Your task to perform on an android device: turn off translation in the chrome app Image 0: 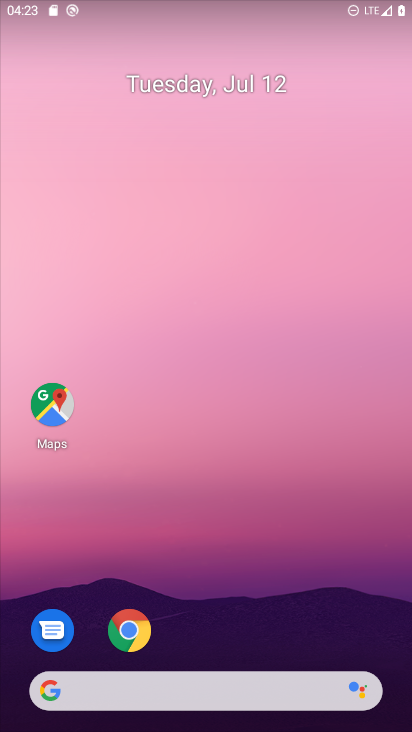
Step 0: drag from (274, 634) to (91, 28)
Your task to perform on an android device: turn off translation in the chrome app Image 1: 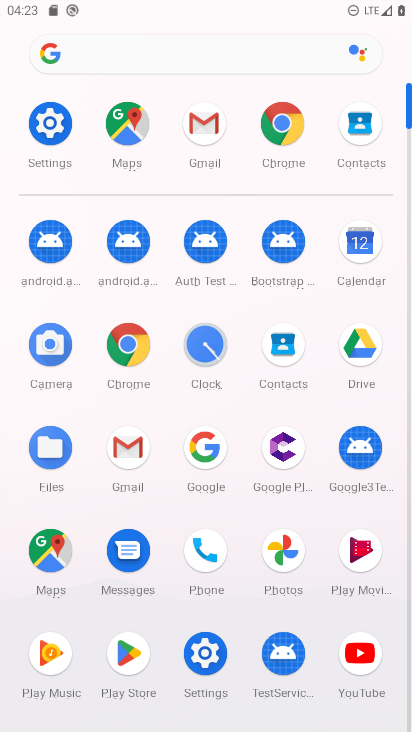
Step 1: click (134, 355)
Your task to perform on an android device: turn off translation in the chrome app Image 2: 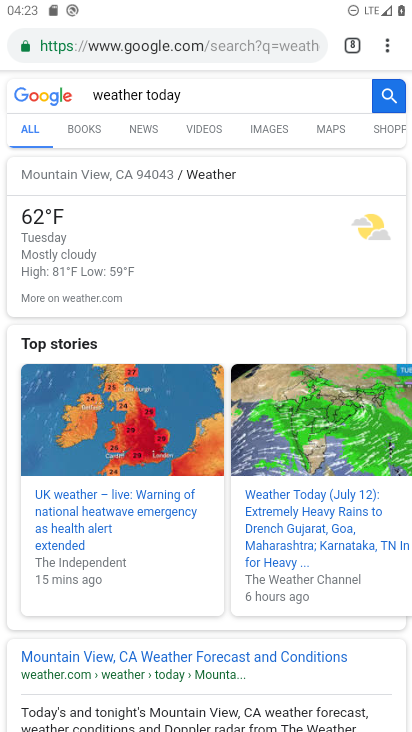
Step 2: drag from (395, 59) to (252, 505)
Your task to perform on an android device: turn off translation in the chrome app Image 3: 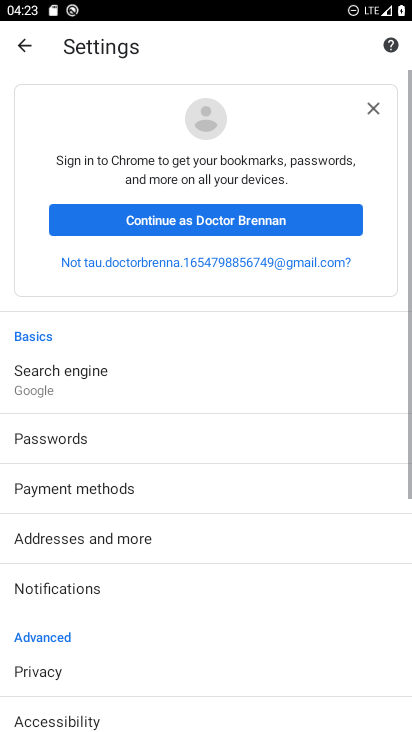
Step 3: drag from (243, 616) to (283, 164)
Your task to perform on an android device: turn off translation in the chrome app Image 4: 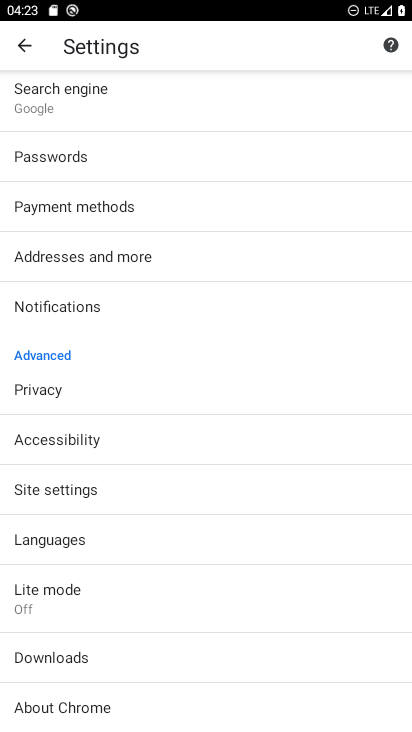
Step 4: click (125, 502)
Your task to perform on an android device: turn off translation in the chrome app Image 5: 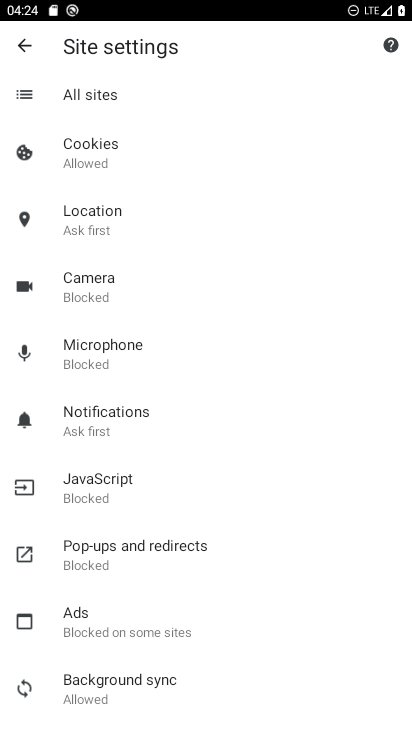
Step 5: drag from (172, 652) to (194, 172)
Your task to perform on an android device: turn off translation in the chrome app Image 6: 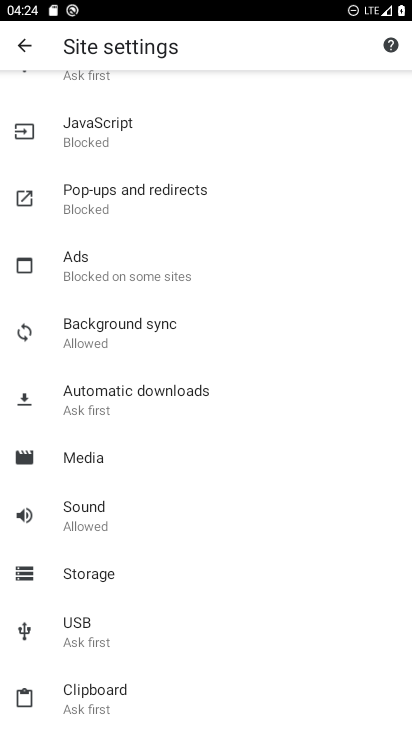
Step 6: drag from (144, 307) to (145, 672)
Your task to perform on an android device: turn off translation in the chrome app Image 7: 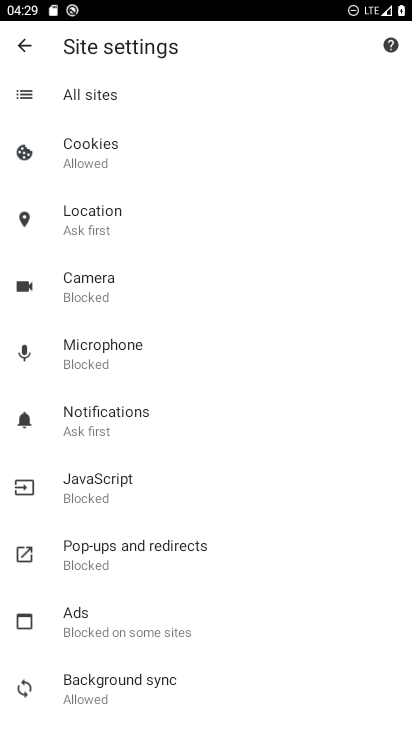
Step 7: press home button
Your task to perform on an android device: turn off translation in the chrome app Image 8: 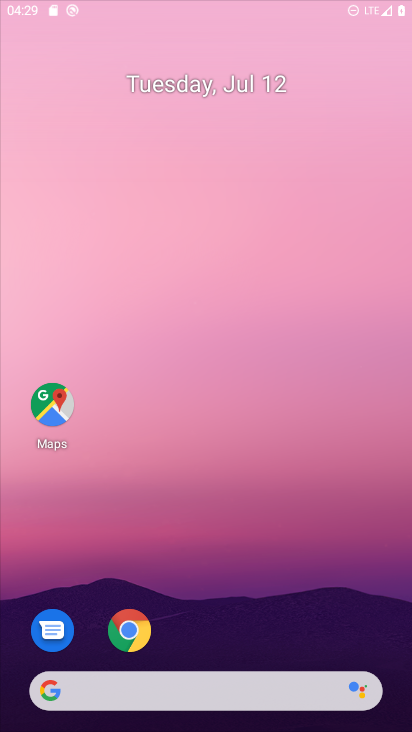
Step 8: drag from (243, 713) to (388, 42)
Your task to perform on an android device: turn off translation in the chrome app Image 9: 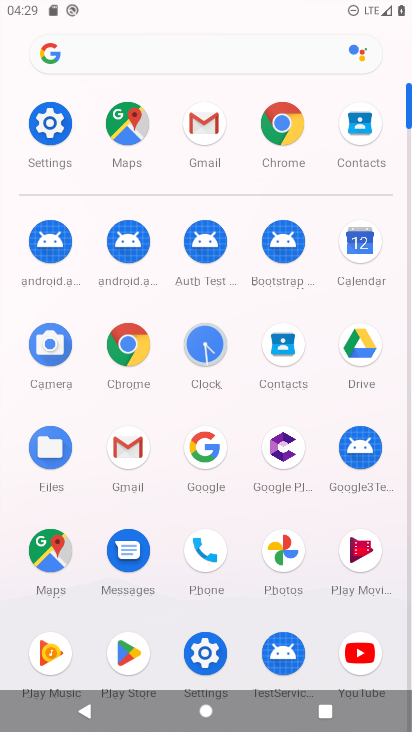
Step 9: click (130, 337)
Your task to perform on an android device: turn off translation in the chrome app Image 10: 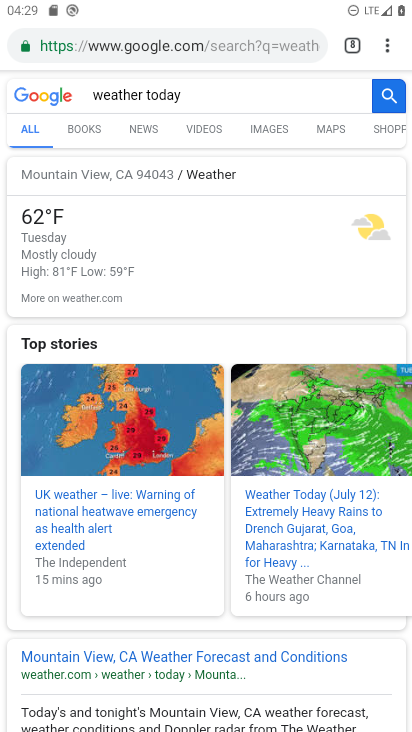
Step 10: drag from (385, 44) to (227, 505)
Your task to perform on an android device: turn off translation in the chrome app Image 11: 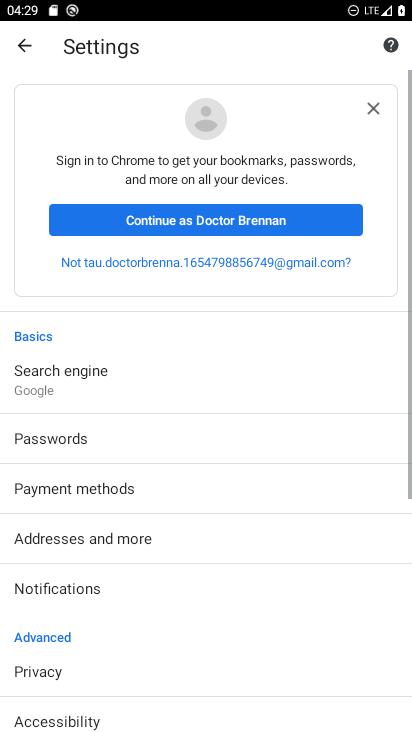
Step 11: drag from (158, 662) to (211, 220)
Your task to perform on an android device: turn off translation in the chrome app Image 12: 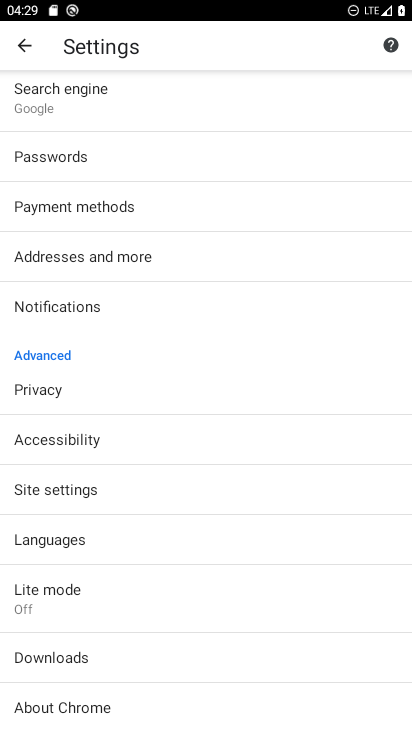
Step 12: click (66, 537)
Your task to perform on an android device: turn off translation in the chrome app Image 13: 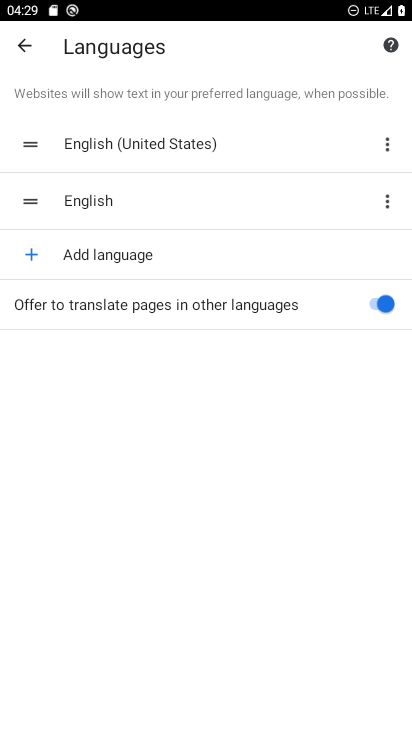
Step 13: click (384, 303)
Your task to perform on an android device: turn off translation in the chrome app Image 14: 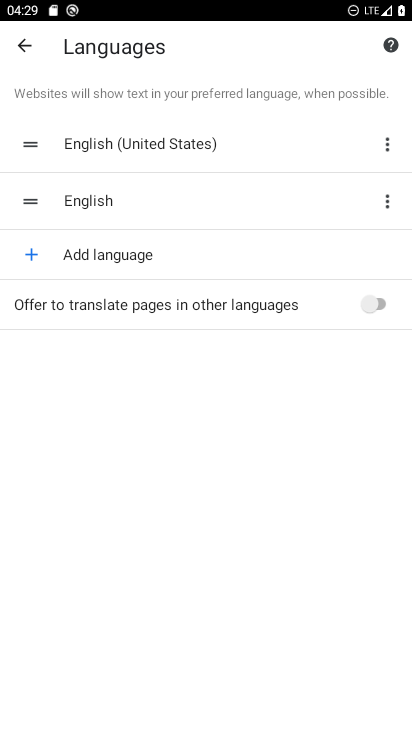
Step 14: task complete